Your task to perform on an android device: see creations saved in the google photos Image 0: 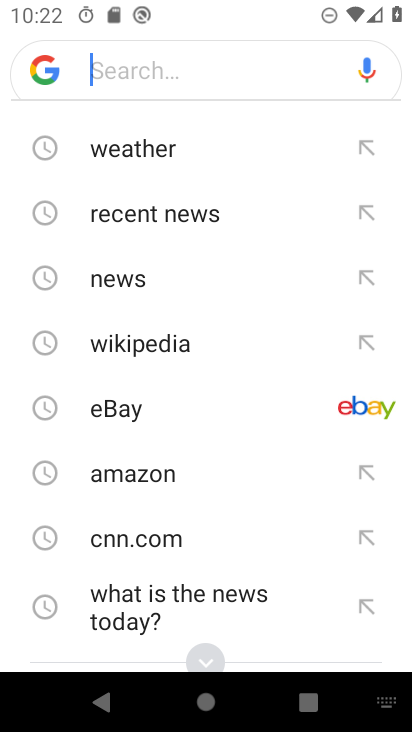
Step 0: press home button
Your task to perform on an android device: see creations saved in the google photos Image 1: 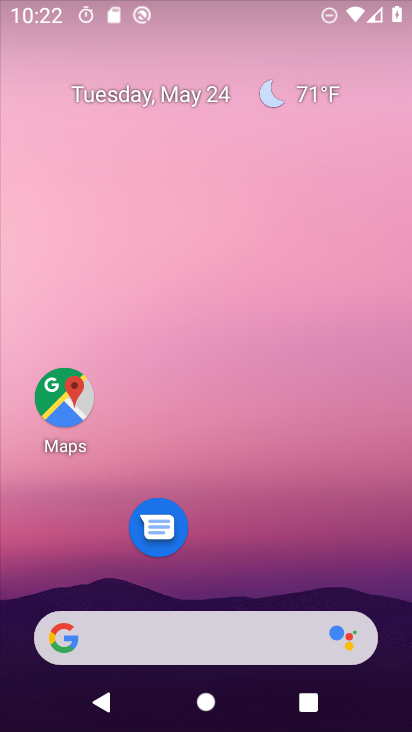
Step 1: drag from (254, 394) to (298, 76)
Your task to perform on an android device: see creations saved in the google photos Image 2: 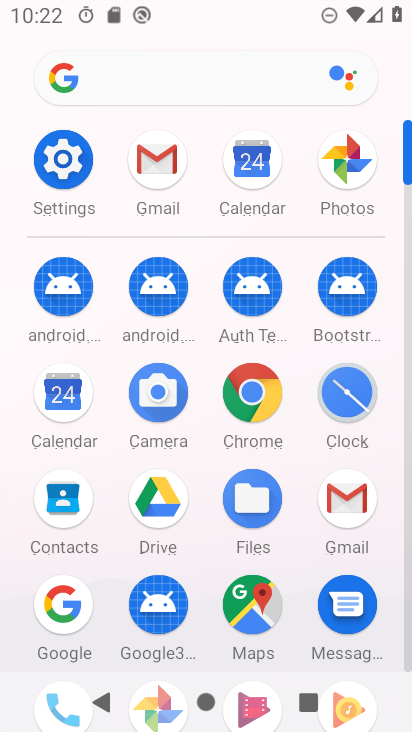
Step 2: click (353, 163)
Your task to perform on an android device: see creations saved in the google photos Image 3: 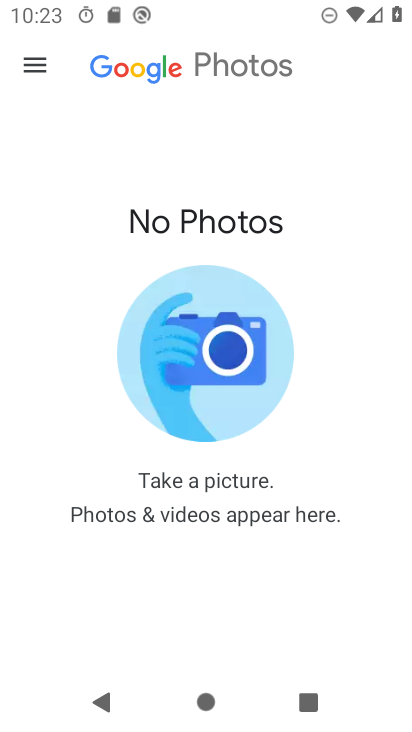
Step 3: press back button
Your task to perform on an android device: see creations saved in the google photos Image 4: 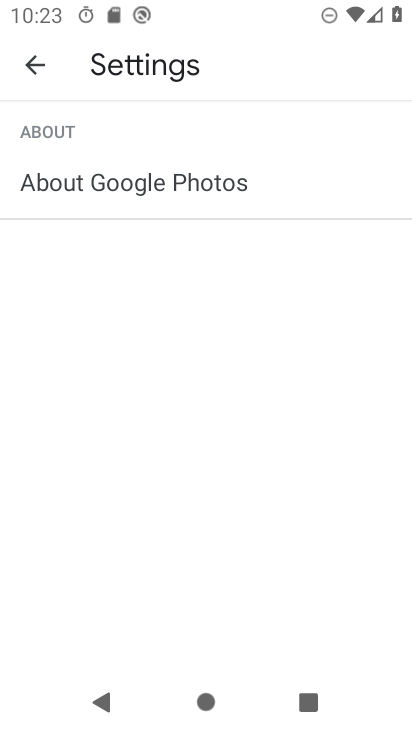
Step 4: press back button
Your task to perform on an android device: see creations saved in the google photos Image 5: 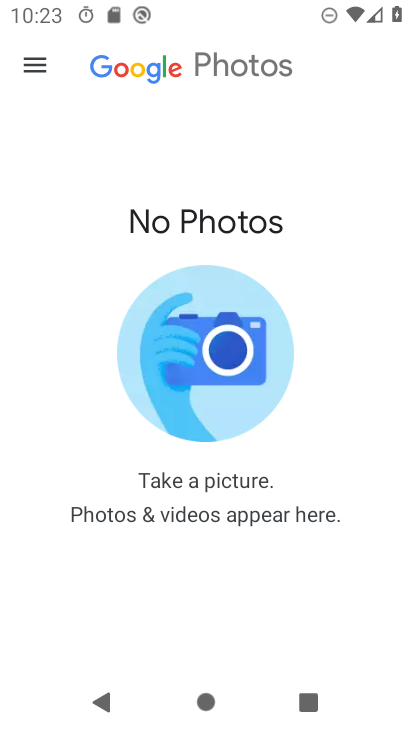
Step 5: press back button
Your task to perform on an android device: see creations saved in the google photos Image 6: 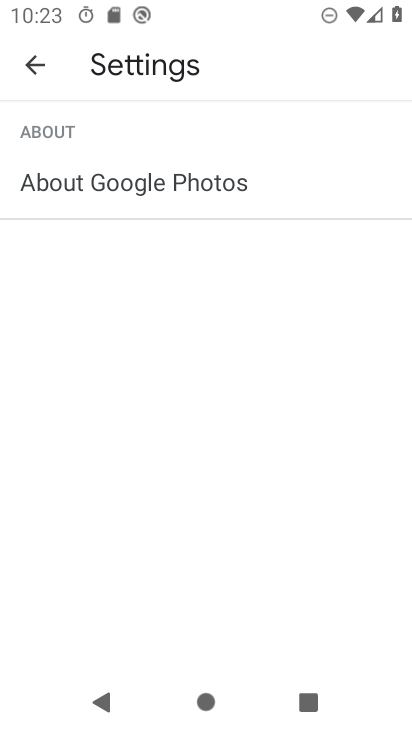
Step 6: press back button
Your task to perform on an android device: see creations saved in the google photos Image 7: 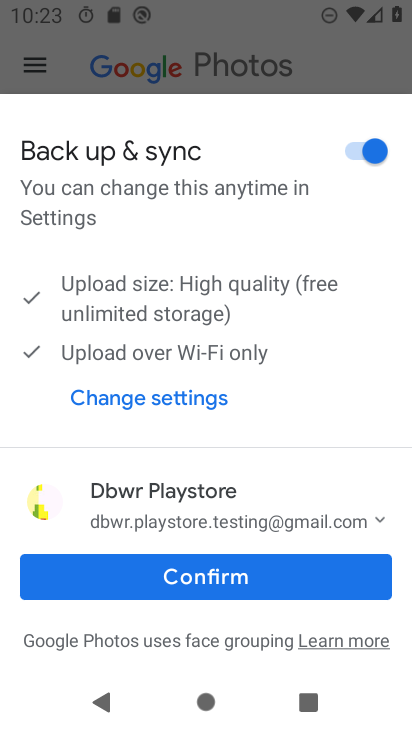
Step 7: click (197, 588)
Your task to perform on an android device: see creations saved in the google photos Image 8: 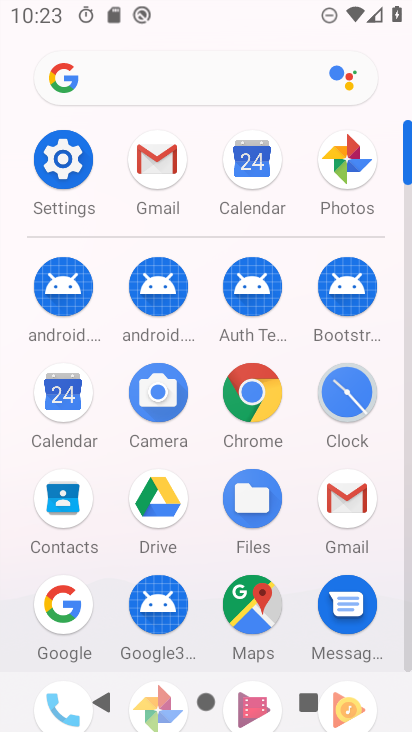
Step 8: click (360, 158)
Your task to perform on an android device: see creations saved in the google photos Image 9: 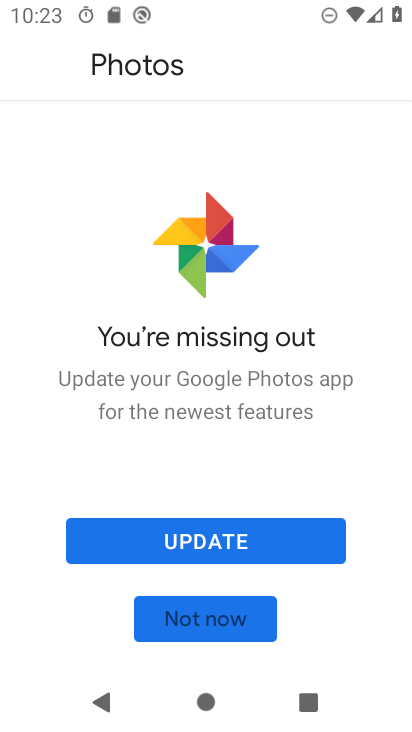
Step 9: click (203, 537)
Your task to perform on an android device: see creations saved in the google photos Image 10: 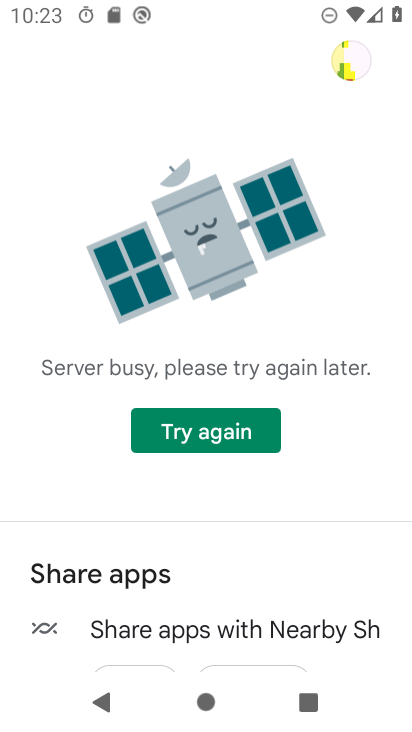
Step 10: task complete